Your task to perform on an android device: turn off improve location accuracy Image 0: 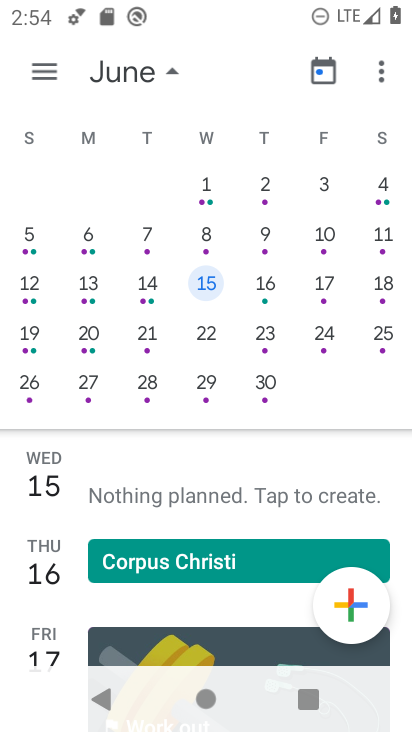
Step 0: press home button
Your task to perform on an android device: turn off improve location accuracy Image 1: 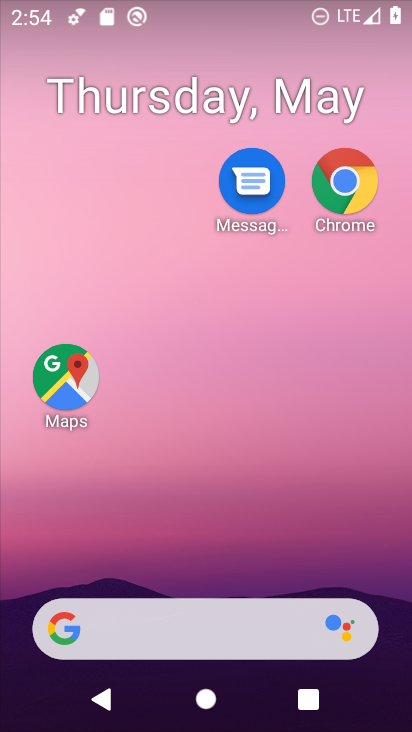
Step 1: drag from (254, 587) to (389, 3)
Your task to perform on an android device: turn off improve location accuracy Image 2: 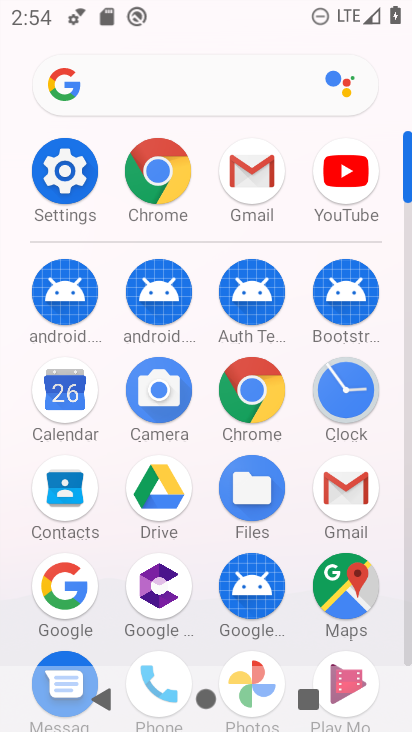
Step 2: click (82, 176)
Your task to perform on an android device: turn off improve location accuracy Image 3: 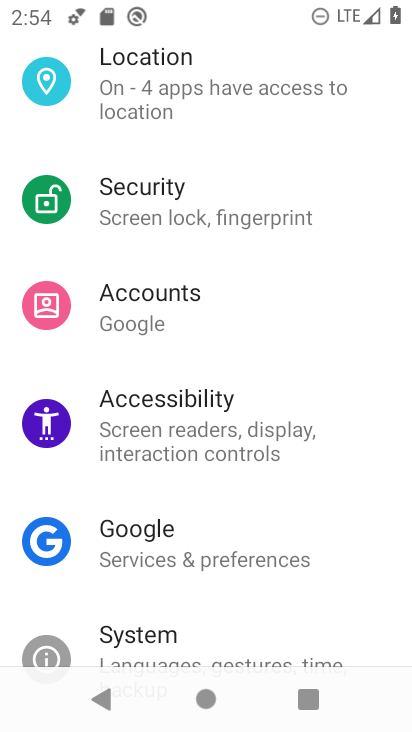
Step 3: click (295, 80)
Your task to perform on an android device: turn off improve location accuracy Image 4: 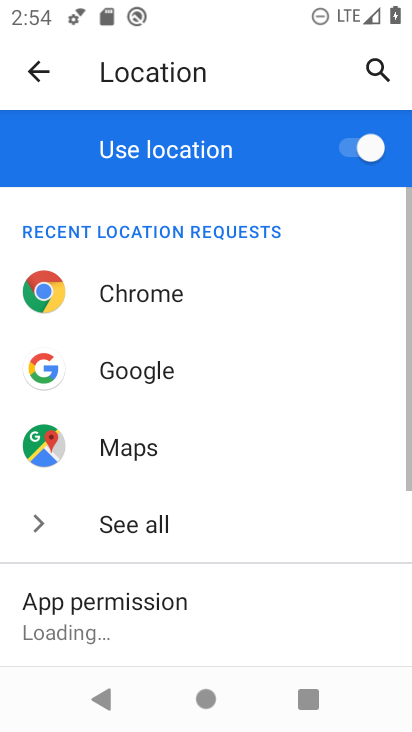
Step 4: drag from (320, 617) to (287, 67)
Your task to perform on an android device: turn off improve location accuracy Image 5: 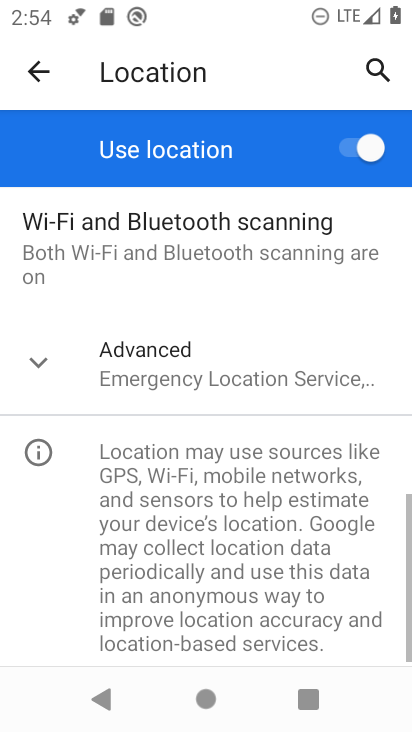
Step 5: click (256, 375)
Your task to perform on an android device: turn off improve location accuracy Image 6: 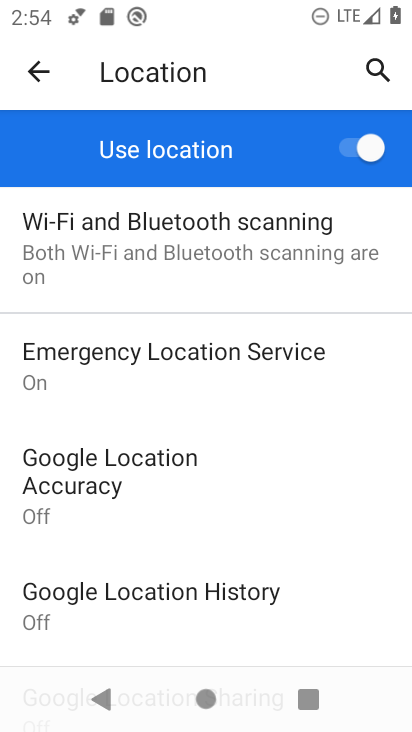
Step 6: task complete